Your task to perform on an android device: visit the assistant section in the google photos Image 0: 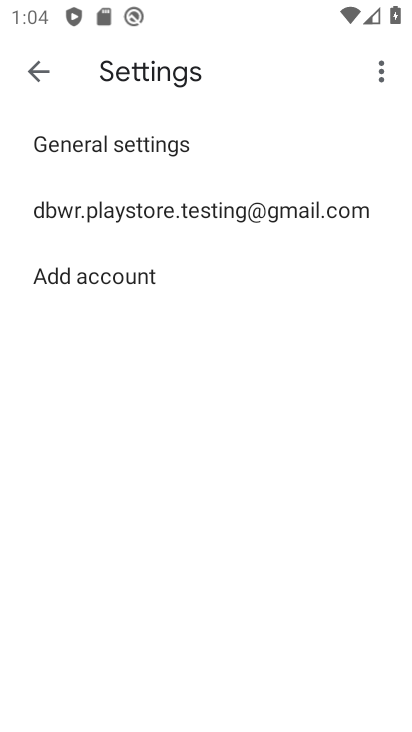
Step 0: press home button
Your task to perform on an android device: visit the assistant section in the google photos Image 1: 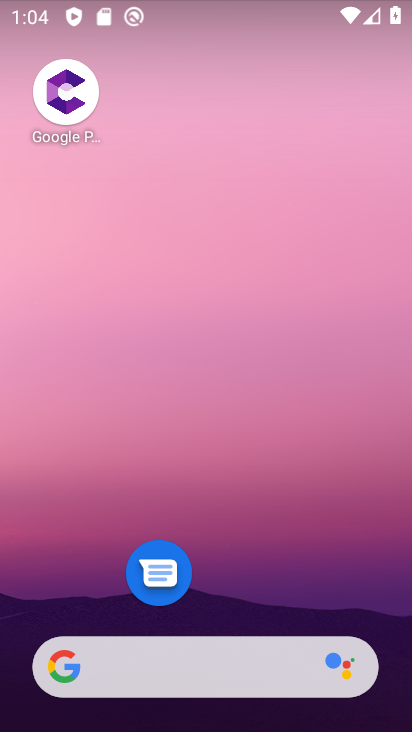
Step 1: drag from (202, 557) to (262, 113)
Your task to perform on an android device: visit the assistant section in the google photos Image 2: 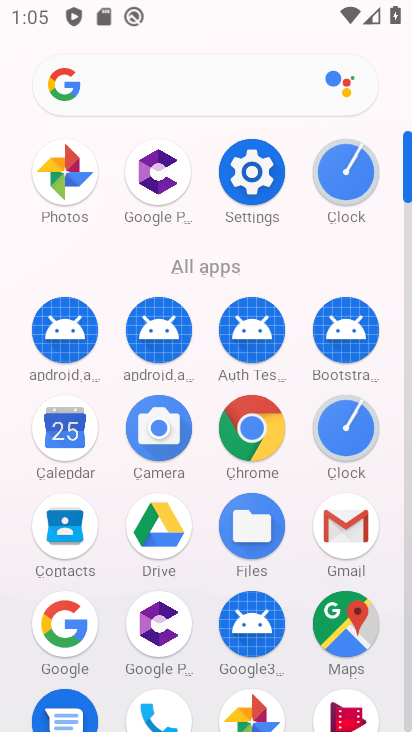
Step 2: click (240, 707)
Your task to perform on an android device: visit the assistant section in the google photos Image 3: 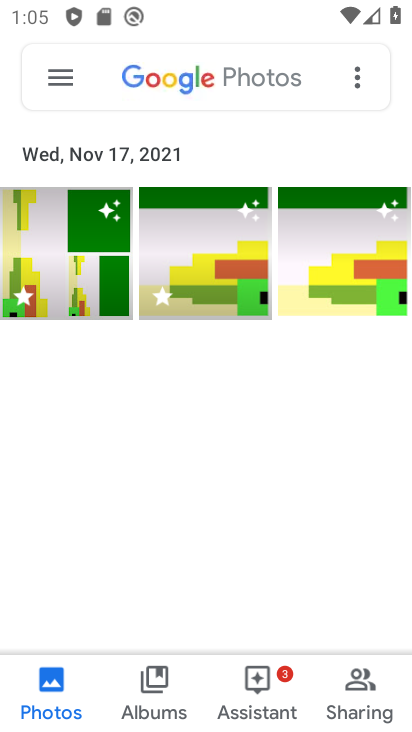
Step 3: click (246, 699)
Your task to perform on an android device: visit the assistant section in the google photos Image 4: 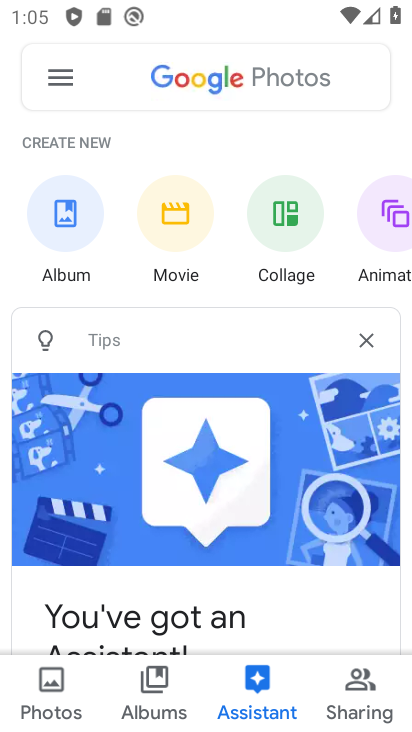
Step 4: task complete